Your task to perform on an android device: turn pop-ups on in chrome Image 0: 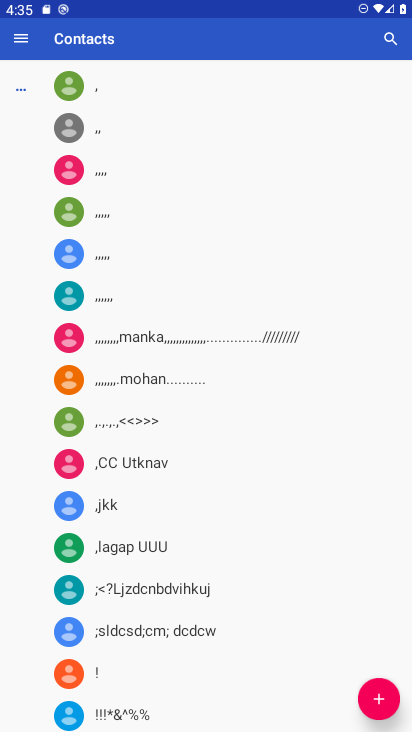
Step 0: press home button
Your task to perform on an android device: turn pop-ups on in chrome Image 1: 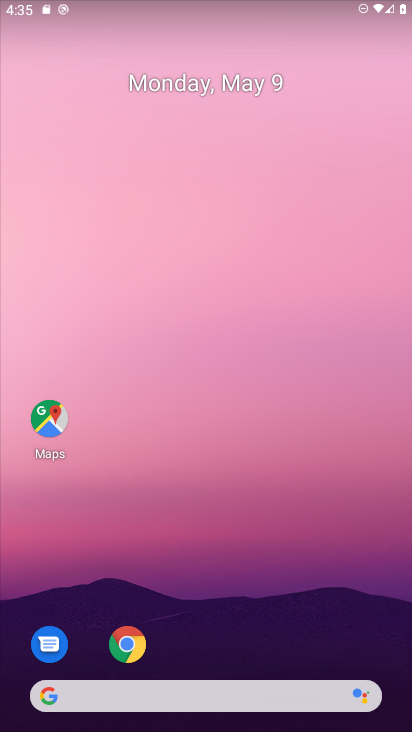
Step 1: drag from (220, 506) to (282, 117)
Your task to perform on an android device: turn pop-ups on in chrome Image 2: 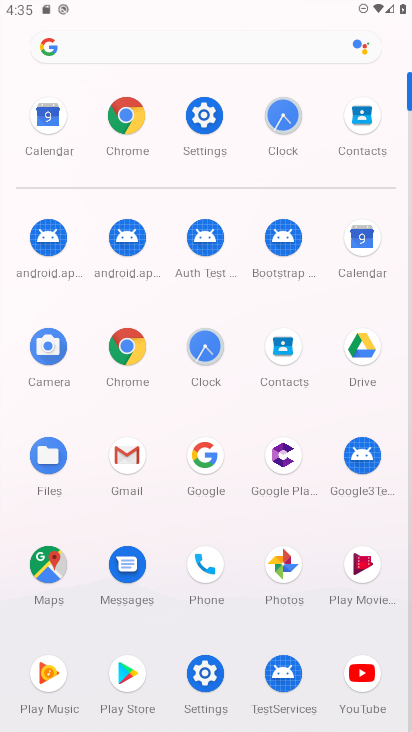
Step 2: click (124, 135)
Your task to perform on an android device: turn pop-ups on in chrome Image 3: 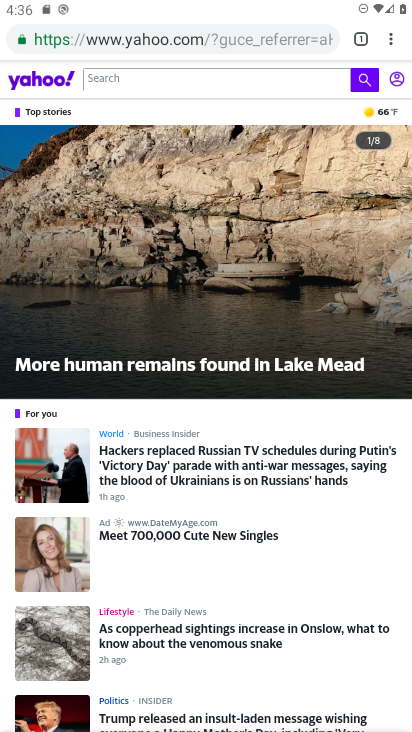
Step 3: click (387, 39)
Your task to perform on an android device: turn pop-ups on in chrome Image 4: 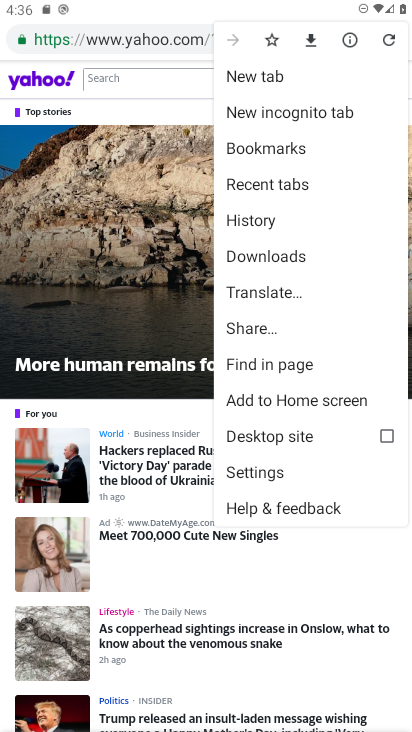
Step 4: click (252, 470)
Your task to perform on an android device: turn pop-ups on in chrome Image 5: 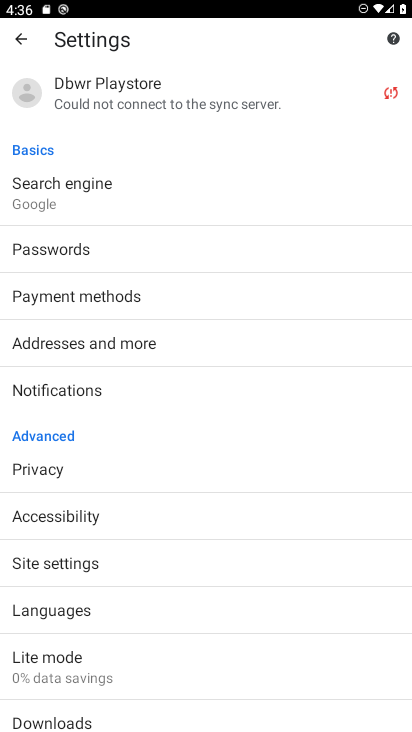
Step 5: click (57, 561)
Your task to perform on an android device: turn pop-ups on in chrome Image 6: 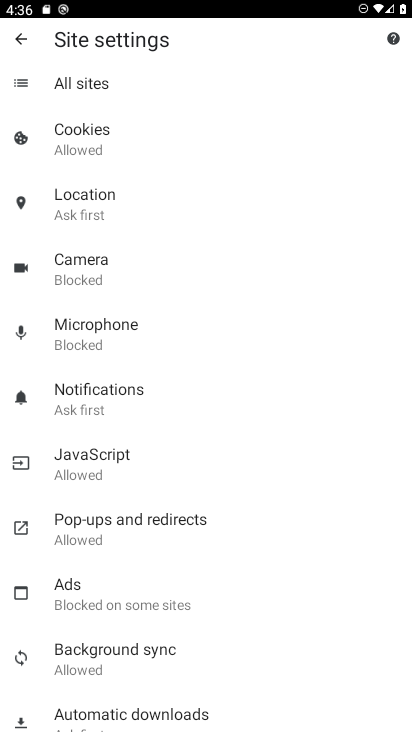
Step 6: click (96, 531)
Your task to perform on an android device: turn pop-ups on in chrome Image 7: 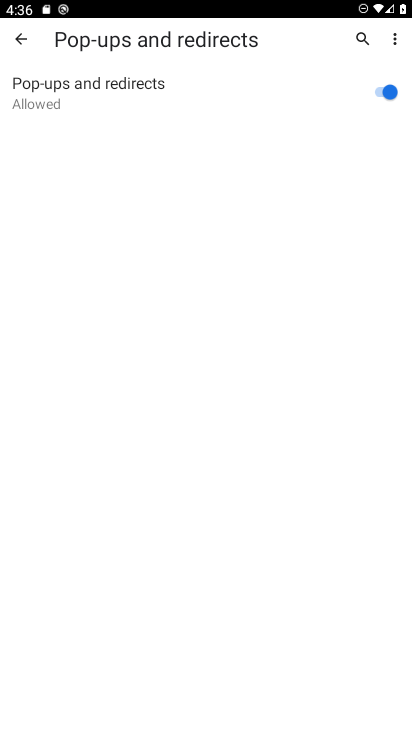
Step 7: task complete